Your task to perform on an android device: turn on translation in the chrome app Image 0: 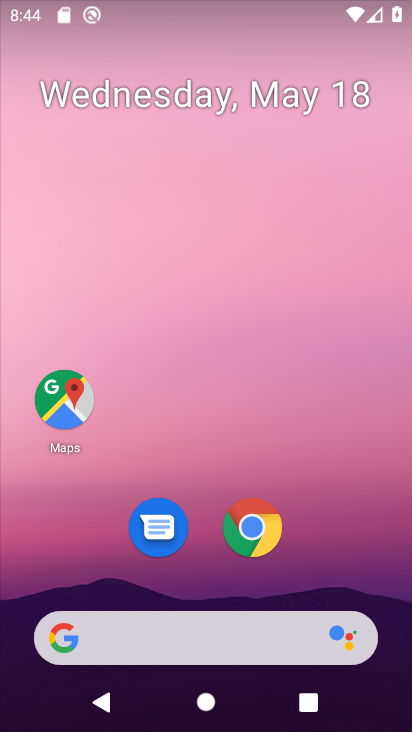
Step 0: drag from (301, 558) to (261, 9)
Your task to perform on an android device: turn on translation in the chrome app Image 1: 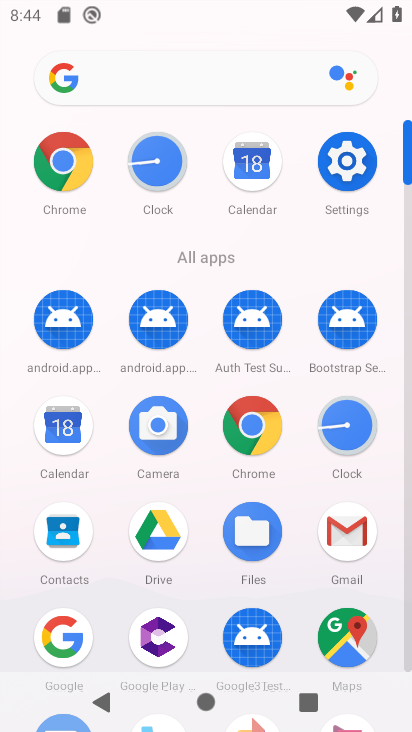
Step 1: click (56, 205)
Your task to perform on an android device: turn on translation in the chrome app Image 2: 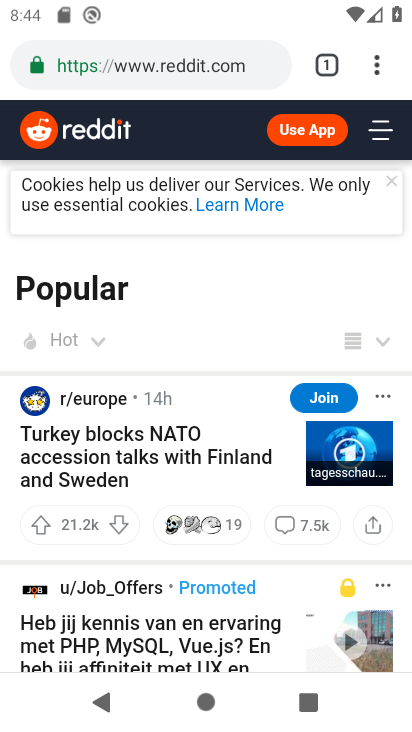
Step 2: click (381, 67)
Your task to perform on an android device: turn on translation in the chrome app Image 3: 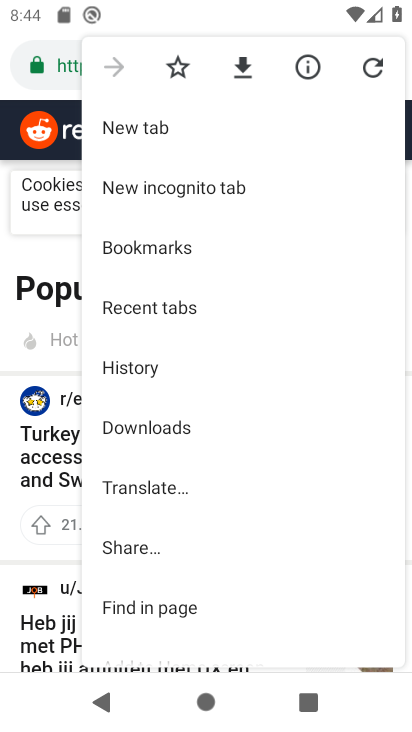
Step 3: drag from (193, 573) to (166, 229)
Your task to perform on an android device: turn on translation in the chrome app Image 4: 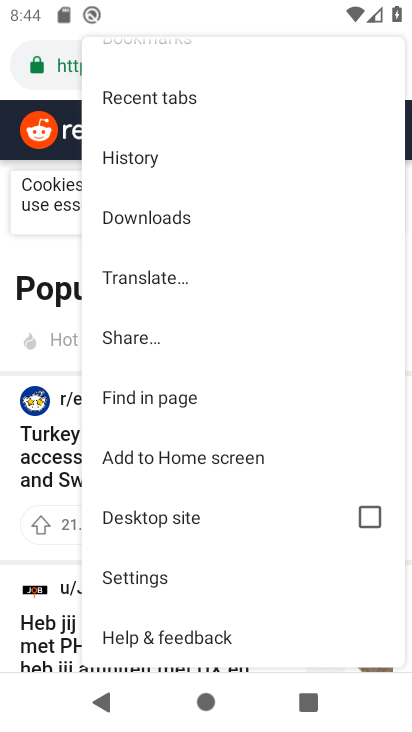
Step 4: click (136, 576)
Your task to perform on an android device: turn on translation in the chrome app Image 5: 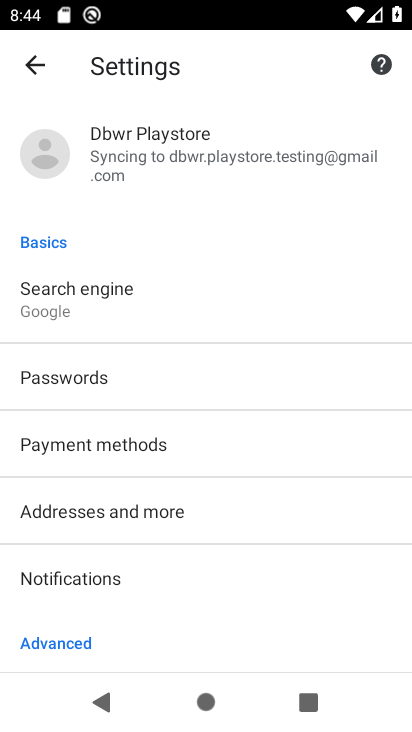
Step 5: drag from (124, 588) to (113, 355)
Your task to perform on an android device: turn on translation in the chrome app Image 6: 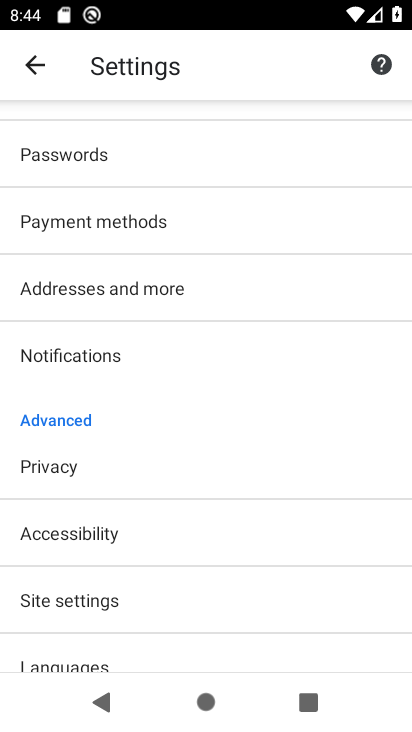
Step 6: drag from (102, 633) to (128, 352)
Your task to perform on an android device: turn on translation in the chrome app Image 7: 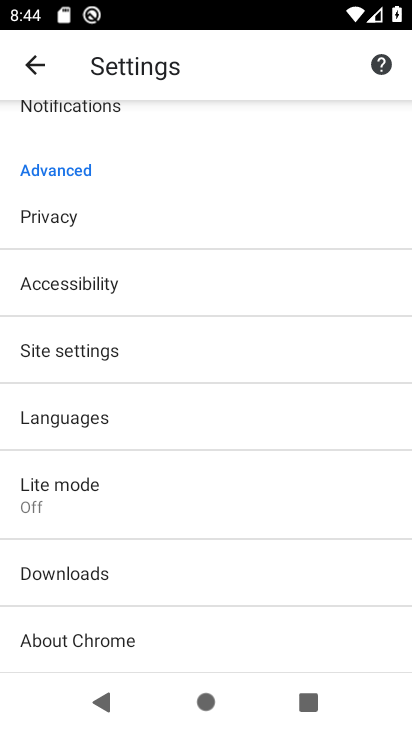
Step 7: click (71, 423)
Your task to perform on an android device: turn on translation in the chrome app Image 8: 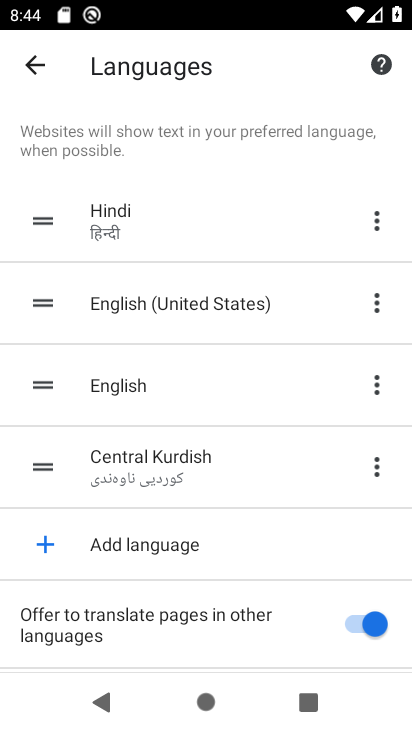
Step 8: task complete